Your task to perform on an android device: Open Wikipedia Image 0: 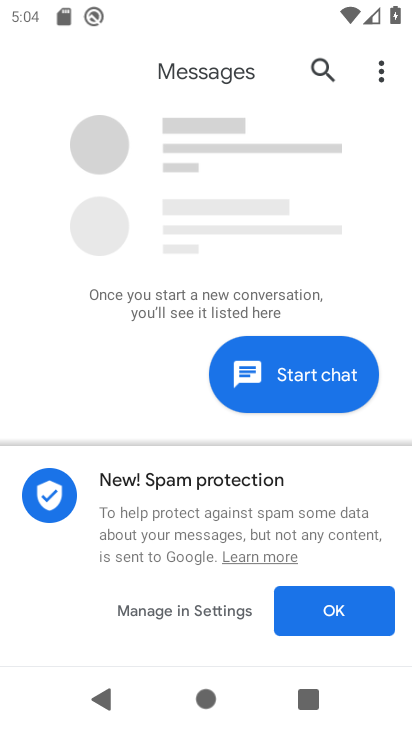
Step 0: press home button
Your task to perform on an android device: Open Wikipedia Image 1: 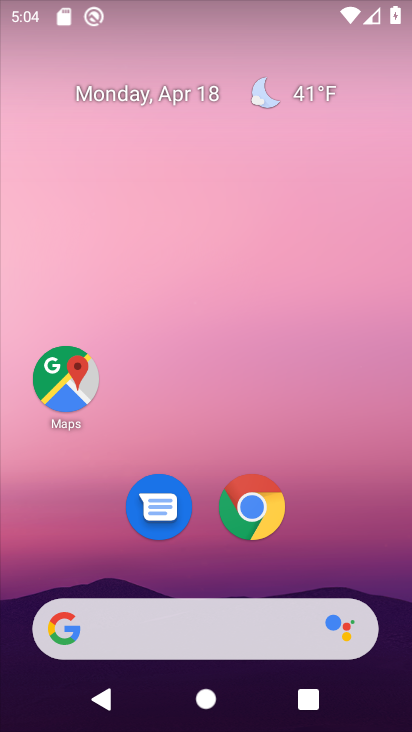
Step 1: drag from (307, 593) to (270, 68)
Your task to perform on an android device: Open Wikipedia Image 2: 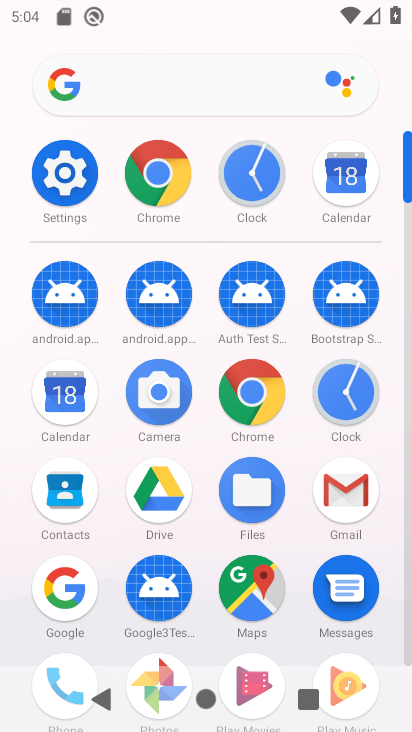
Step 2: click (247, 396)
Your task to perform on an android device: Open Wikipedia Image 3: 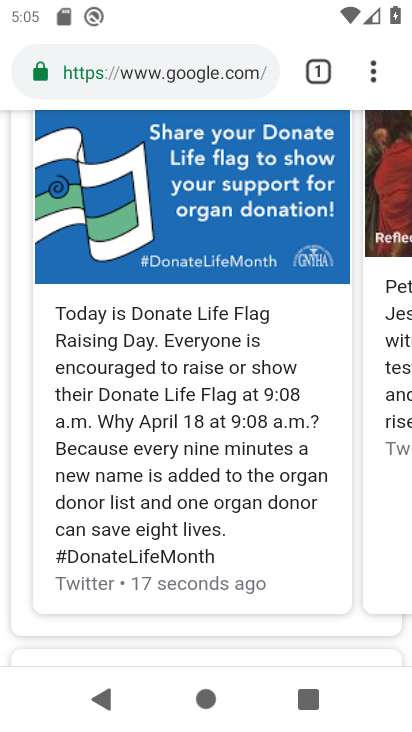
Step 3: click (186, 72)
Your task to perform on an android device: Open Wikipedia Image 4: 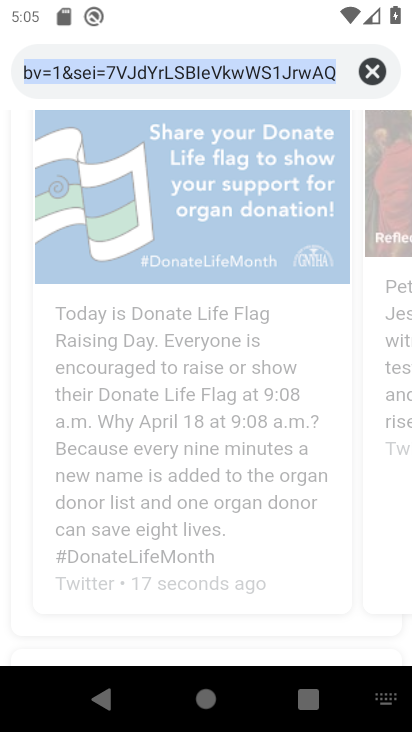
Step 4: type "wikipedia"
Your task to perform on an android device: Open Wikipedia Image 5: 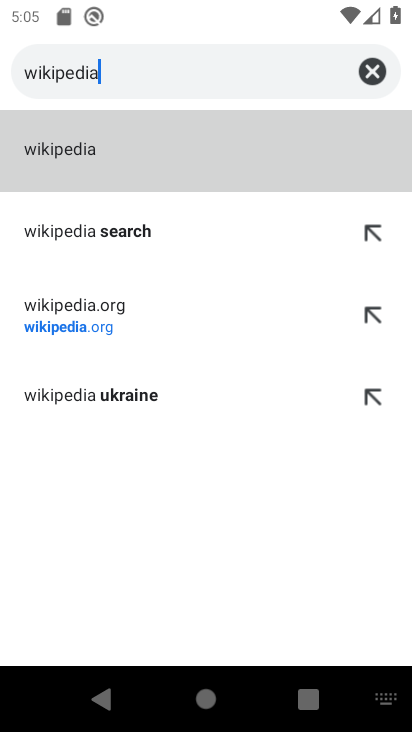
Step 5: click (247, 172)
Your task to perform on an android device: Open Wikipedia Image 6: 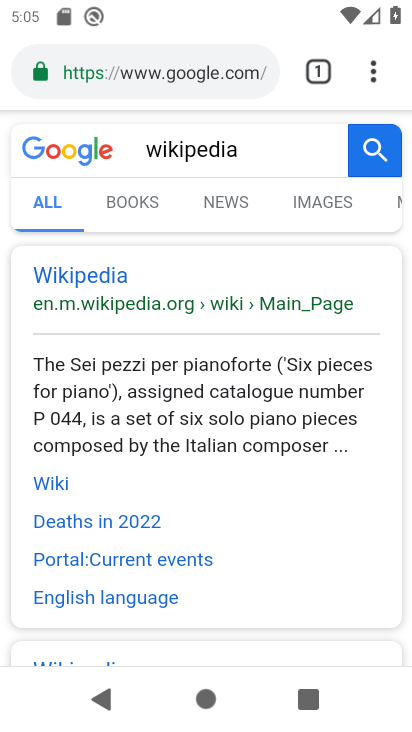
Step 6: task complete